Your task to perform on an android device: Go to calendar. Show me events next week Image 0: 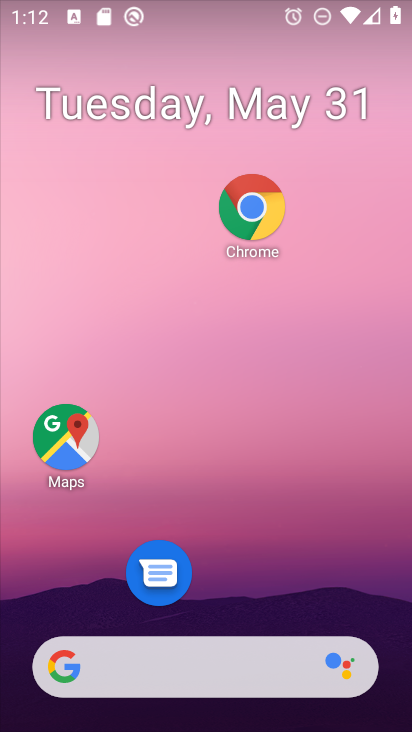
Step 0: drag from (306, 599) to (306, 176)
Your task to perform on an android device: Go to calendar. Show me events next week Image 1: 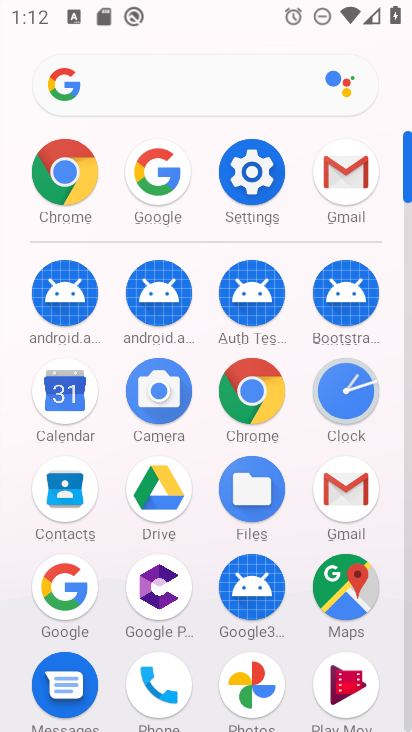
Step 1: click (71, 396)
Your task to perform on an android device: Go to calendar. Show me events next week Image 2: 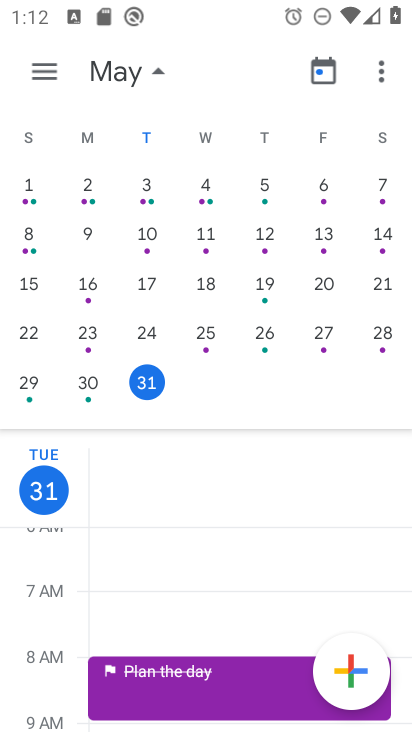
Step 2: press home button
Your task to perform on an android device: Go to calendar. Show me events next week Image 3: 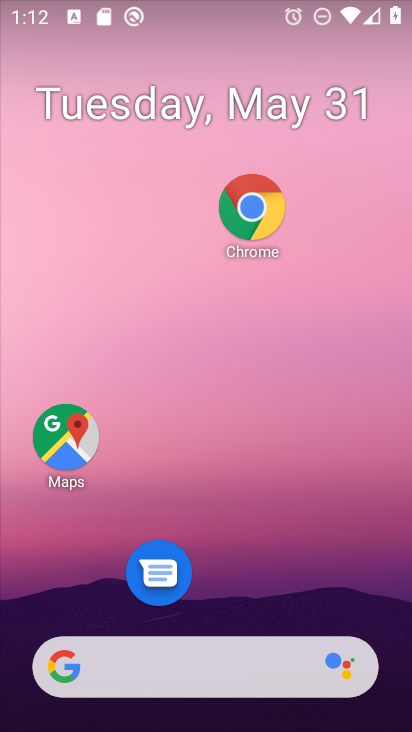
Step 3: drag from (247, 289) to (266, 189)
Your task to perform on an android device: Go to calendar. Show me events next week Image 4: 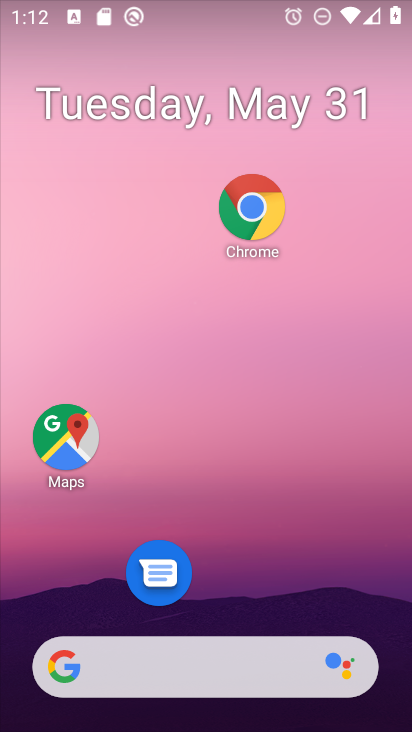
Step 4: drag from (161, 629) to (131, 23)
Your task to perform on an android device: Go to calendar. Show me events next week Image 5: 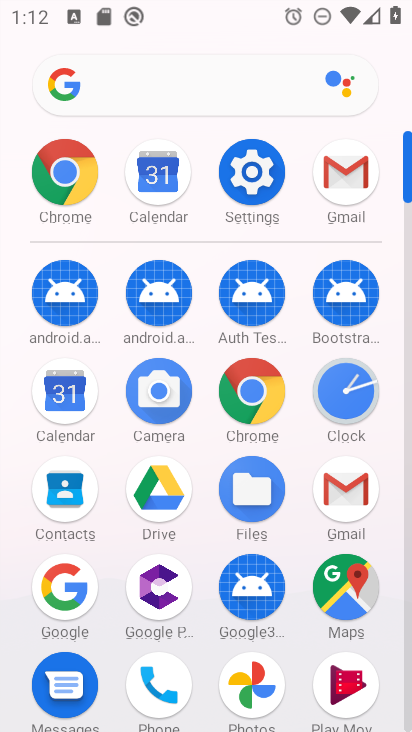
Step 5: click (67, 412)
Your task to perform on an android device: Go to calendar. Show me events next week Image 6: 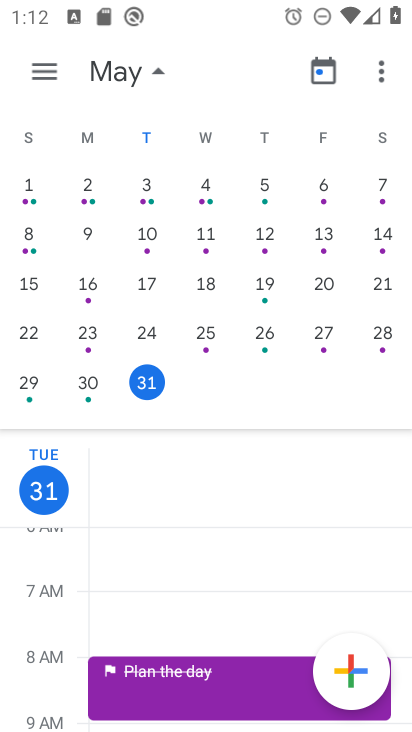
Step 6: task complete